Your task to perform on an android device: turn on data saver in the chrome app Image 0: 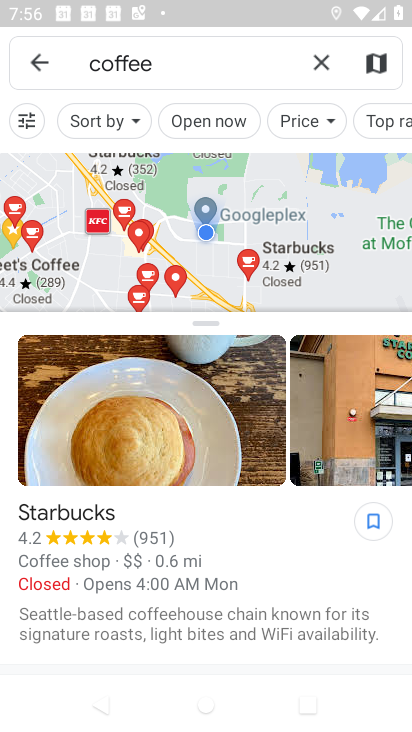
Step 0: press home button
Your task to perform on an android device: turn on data saver in the chrome app Image 1: 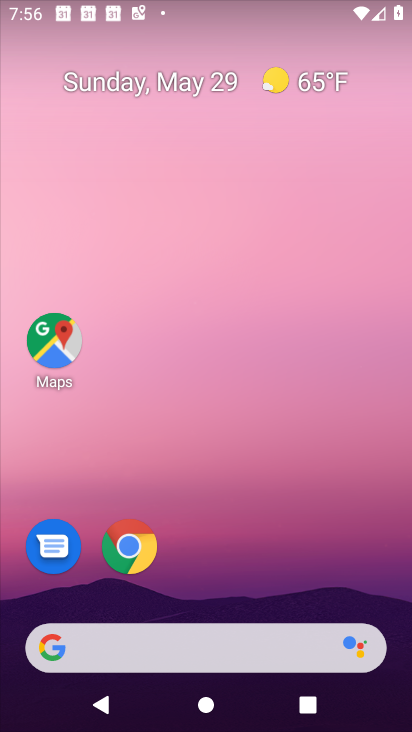
Step 1: click (137, 535)
Your task to perform on an android device: turn on data saver in the chrome app Image 2: 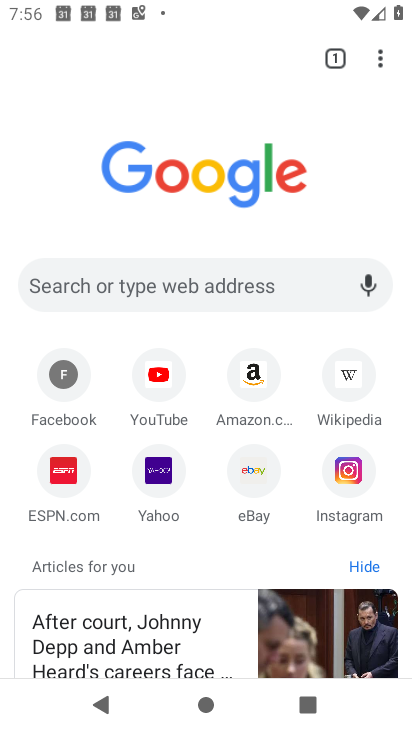
Step 2: click (384, 52)
Your task to perform on an android device: turn on data saver in the chrome app Image 3: 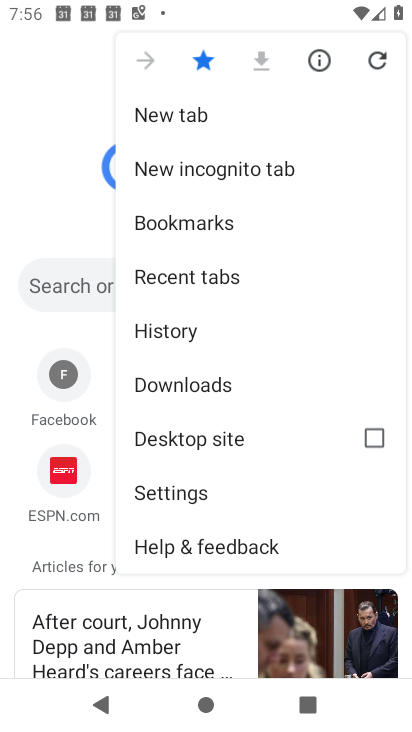
Step 3: click (196, 487)
Your task to perform on an android device: turn on data saver in the chrome app Image 4: 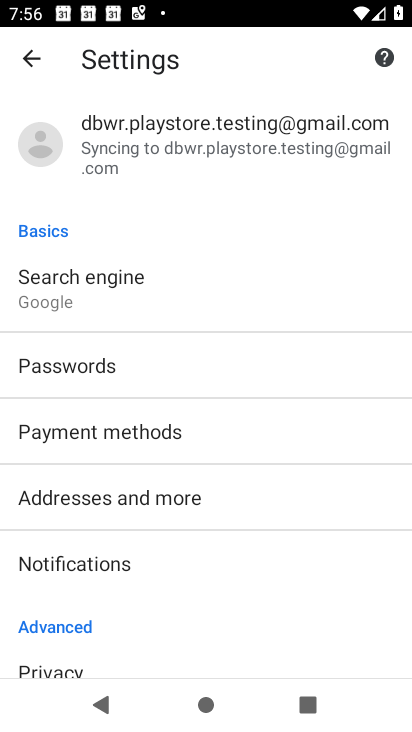
Step 4: drag from (109, 660) to (109, 213)
Your task to perform on an android device: turn on data saver in the chrome app Image 5: 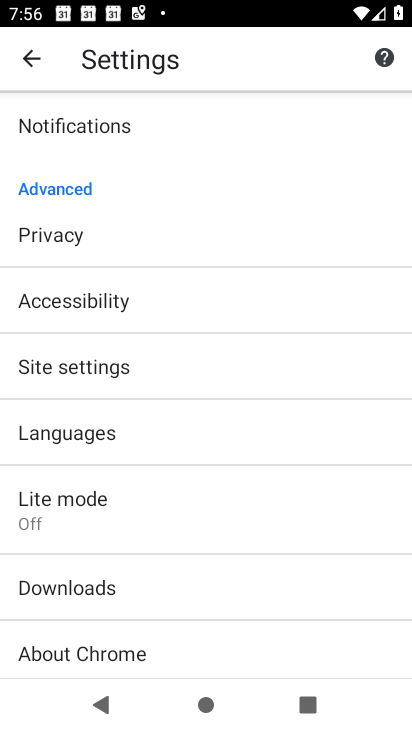
Step 5: click (60, 515)
Your task to perform on an android device: turn on data saver in the chrome app Image 6: 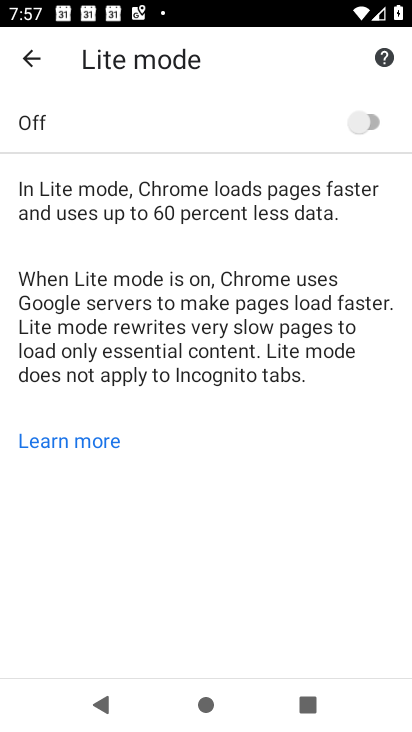
Step 6: click (363, 121)
Your task to perform on an android device: turn on data saver in the chrome app Image 7: 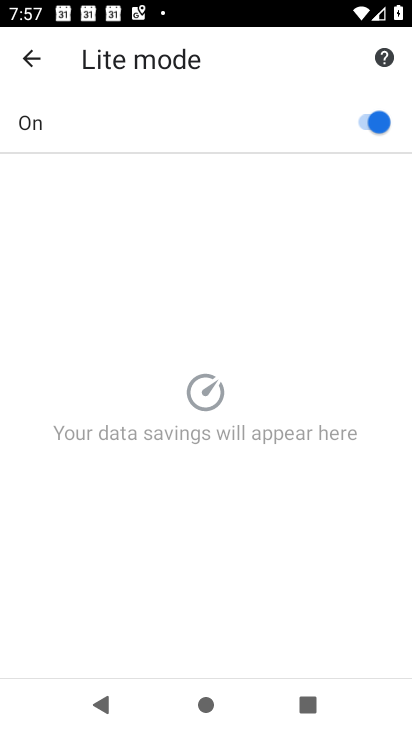
Step 7: task complete